Your task to perform on an android device: Open eBay Image 0: 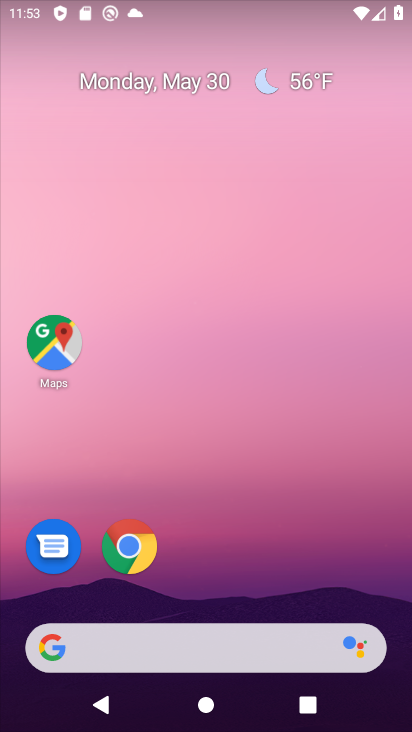
Step 0: drag from (253, 691) to (176, 67)
Your task to perform on an android device: Open eBay Image 1: 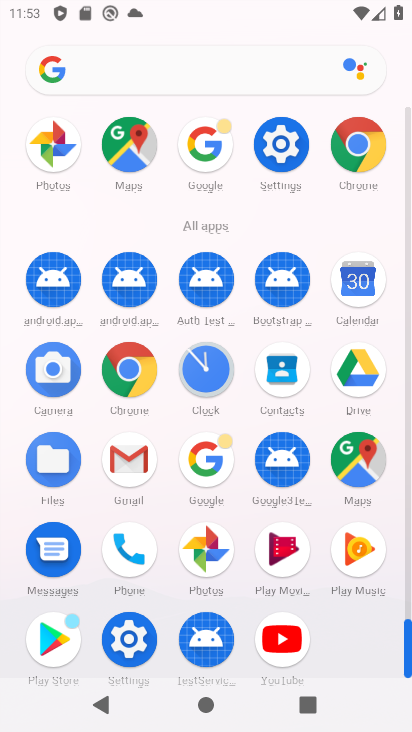
Step 1: click (355, 140)
Your task to perform on an android device: Open eBay Image 2: 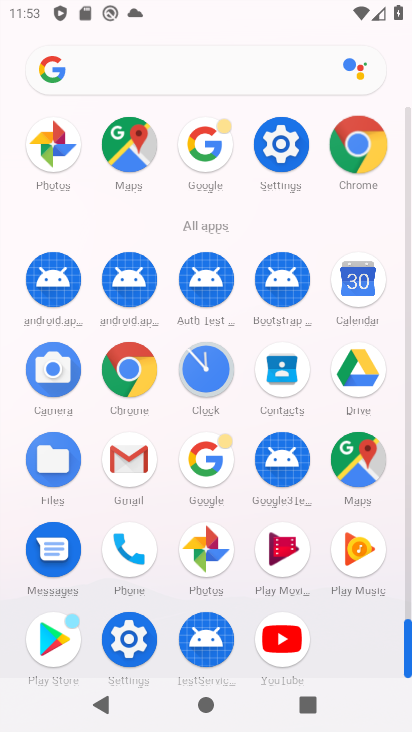
Step 2: click (356, 139)
Your task to perform on an android device: Open eBay Image 3: 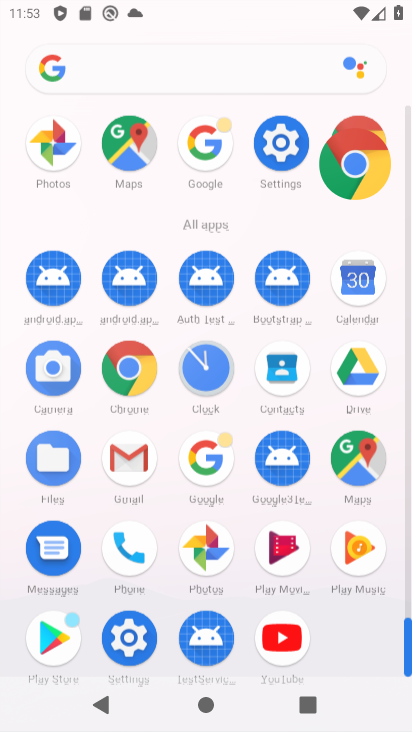
Step 3: click (356, 139)
Your task to perform on an android device: Open eBay Image 4: 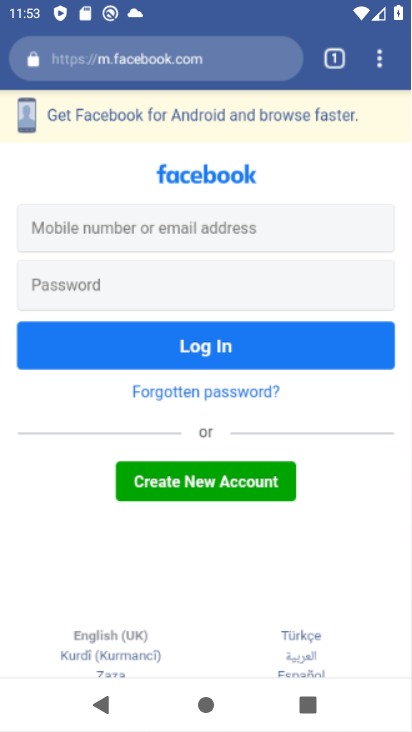
Step 4: click (358, 139)
Your task to perform on an android device: Open eBay Image 5: 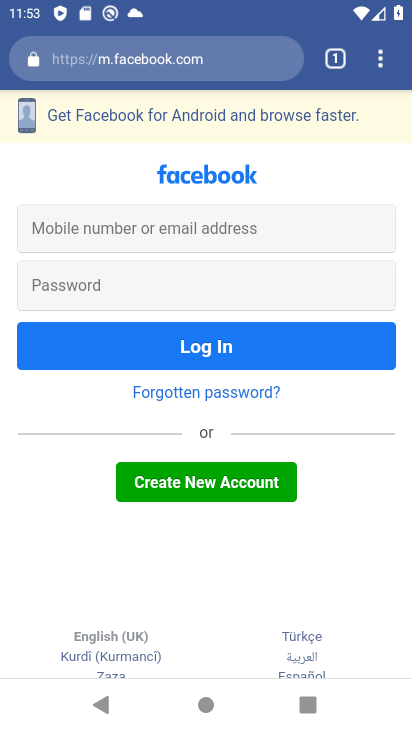
Step 5: press back button
Your task to perform on an android device: Open eBay Image 6: 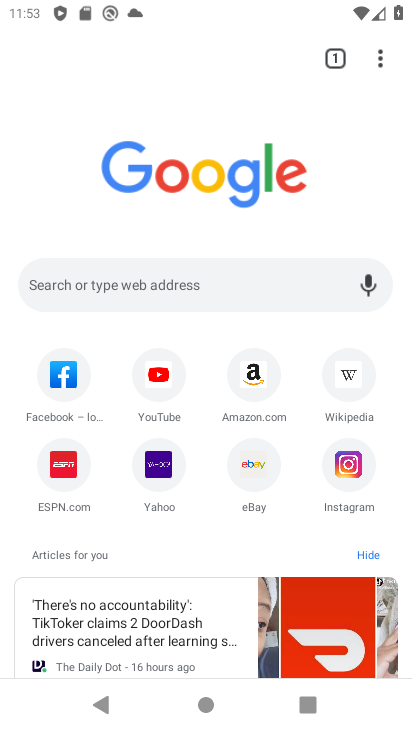
Step 6: click (259, 459)
Your task to perform on an android device: Open eBay Image 7: 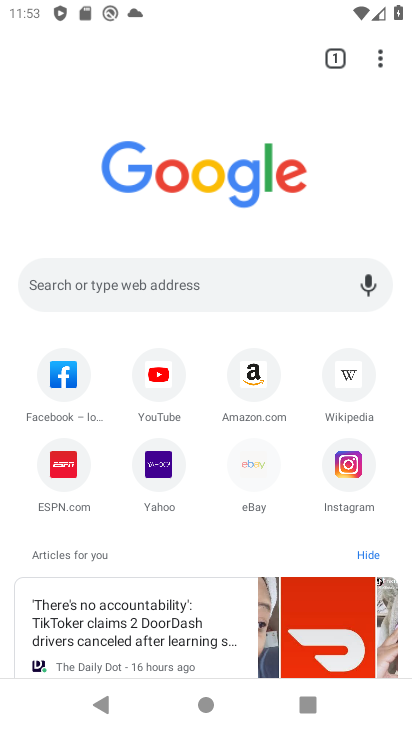
Step 7: click (259, 460)
Your task to perform on an android device: Open eBay Image 8: 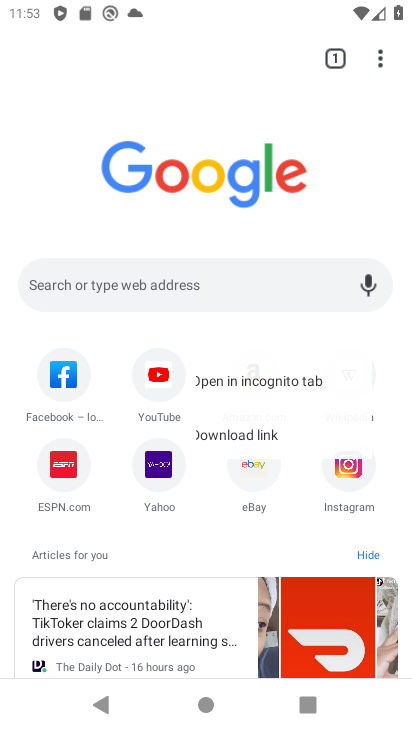
Step 8: click (258, 460)
Your task to perform on an android device: Open eBay Image 9: 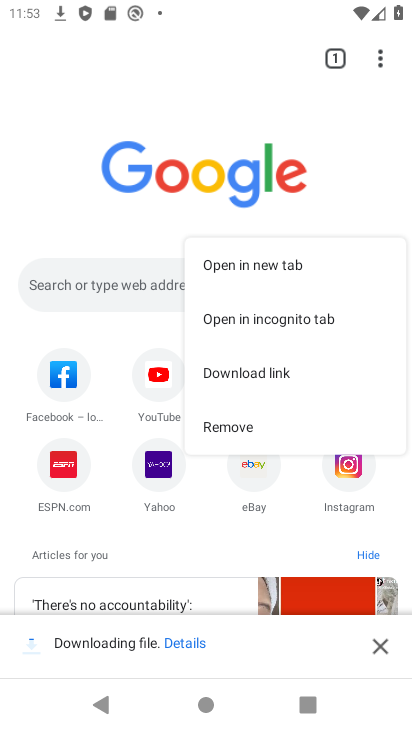
Step 9: click (256, 259)
Your task to perform on an android device: Open eBay Image 10: 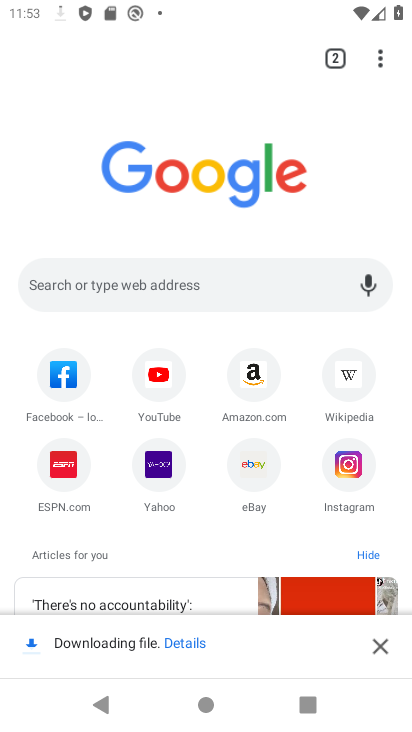
Step 10: click (239, 468)
Your task to perform on an android device: Open eBay Image 11: 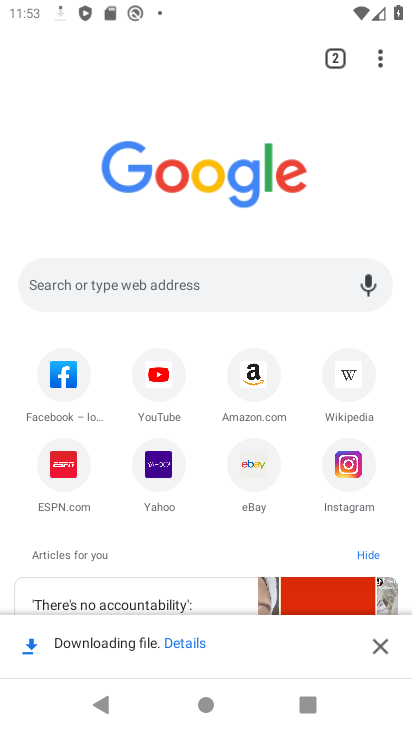
Step 11: click (239, 468)
Your task to perform on an android device: Open eBay Image 12: 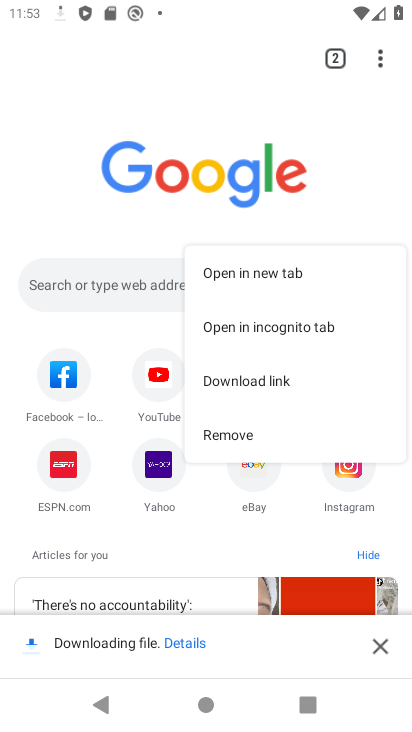
Step 12: click (241, 466)
Your task to perform on an android device: Open eBay Image 13: 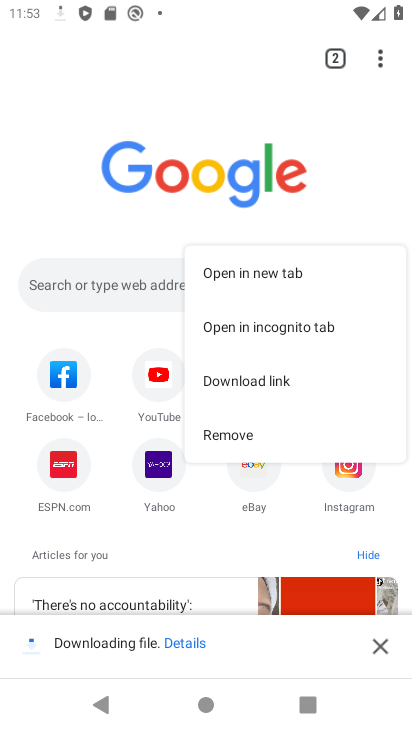
Step 13: click (233, 270)
Your task to perform on an android device: Open eBay Image 14: 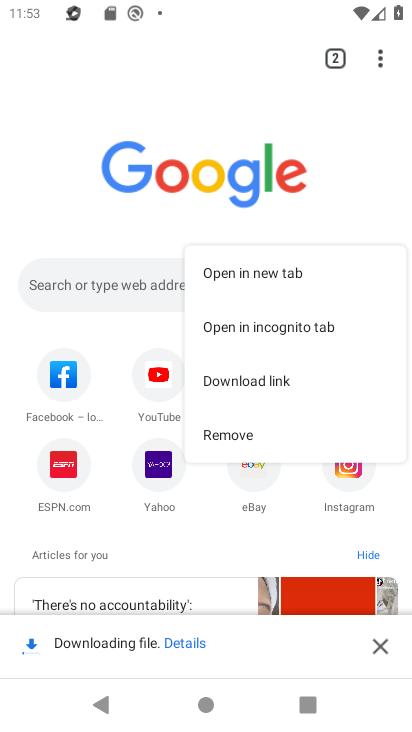
Step 14: click (235, 268)
Your task to perform on an android device: Open eBay Image 15: 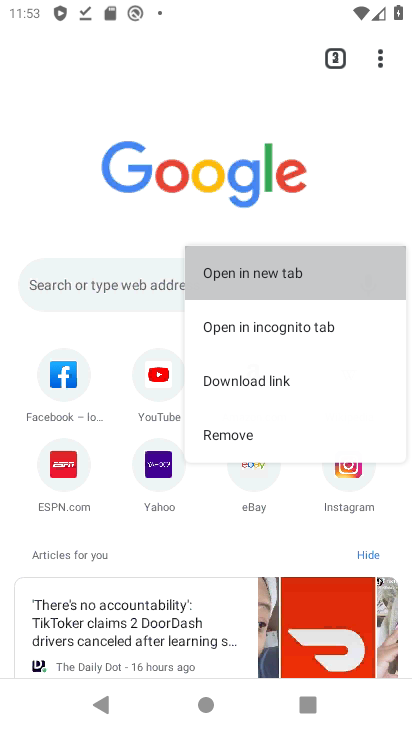
Step 15: click (238, 268)
Your task to perform on an android device: Open eBay Image 16: 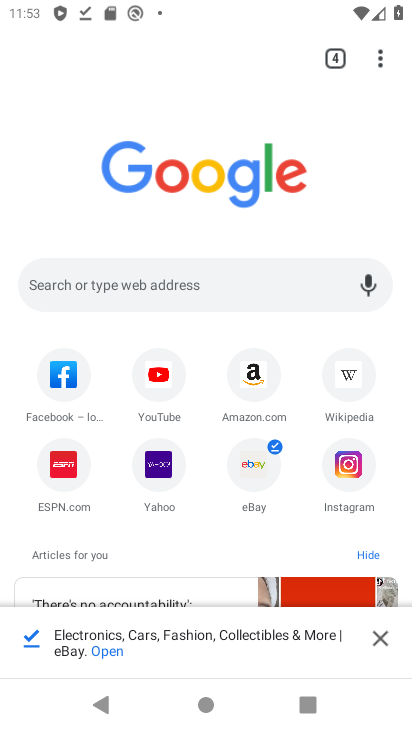
Step 16: click (264, 452)
Your task to perform on an android device: Open eBay Image 17: 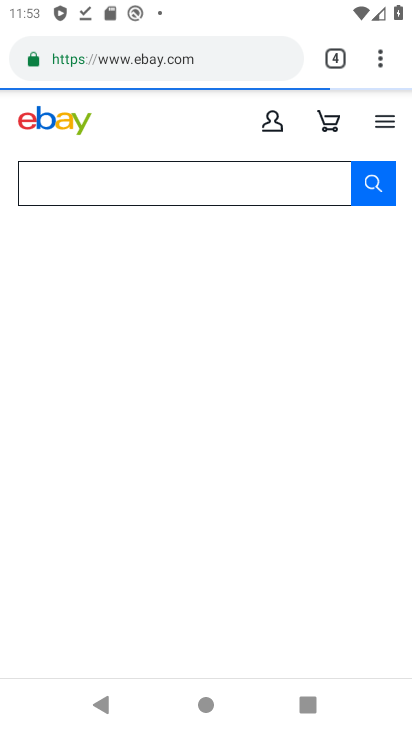
Step 17: task complete